Your task to perform on an android device: Check the weather Image 0: 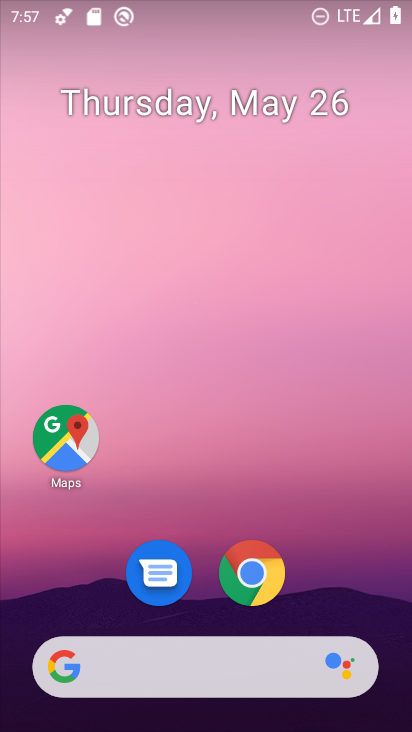
Step 0: drag from (319, 555) to (200, 27)
Your task to perform on an android device: Check the weather Image 1: 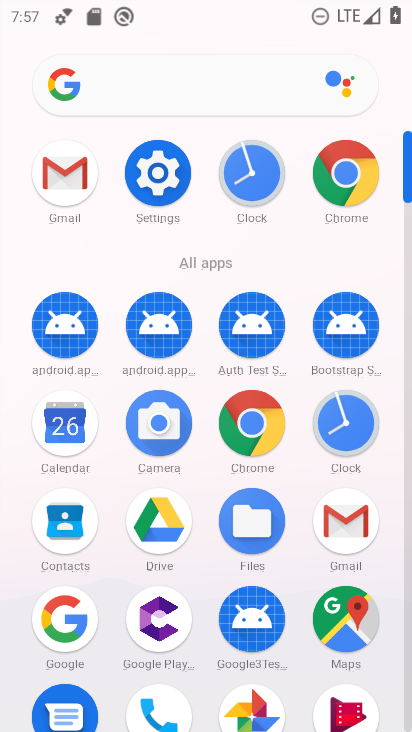
Step 1: drag from (3, 547) to (10, 214)
Your task to perform on an android device: Check the weather Image 2: 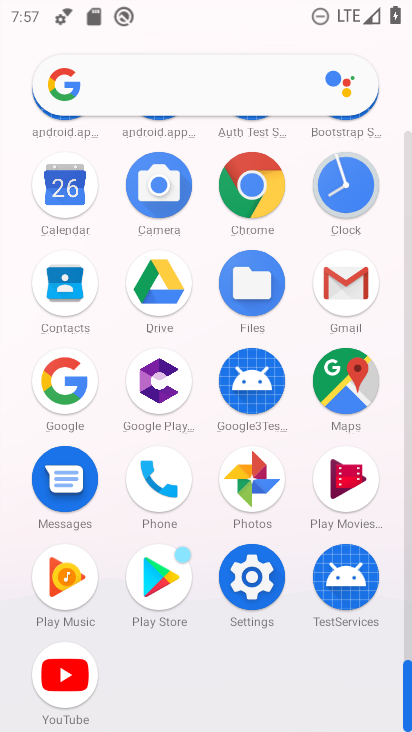
Step 2: click (252, 184)
Your task to perform on an android device: Check the weather Image 3: 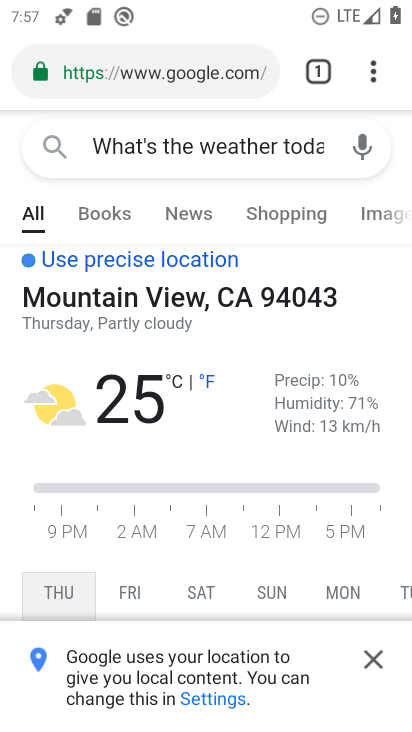
Step 3: task complete